Your task to perform on an android device: Go to Google Image 0: 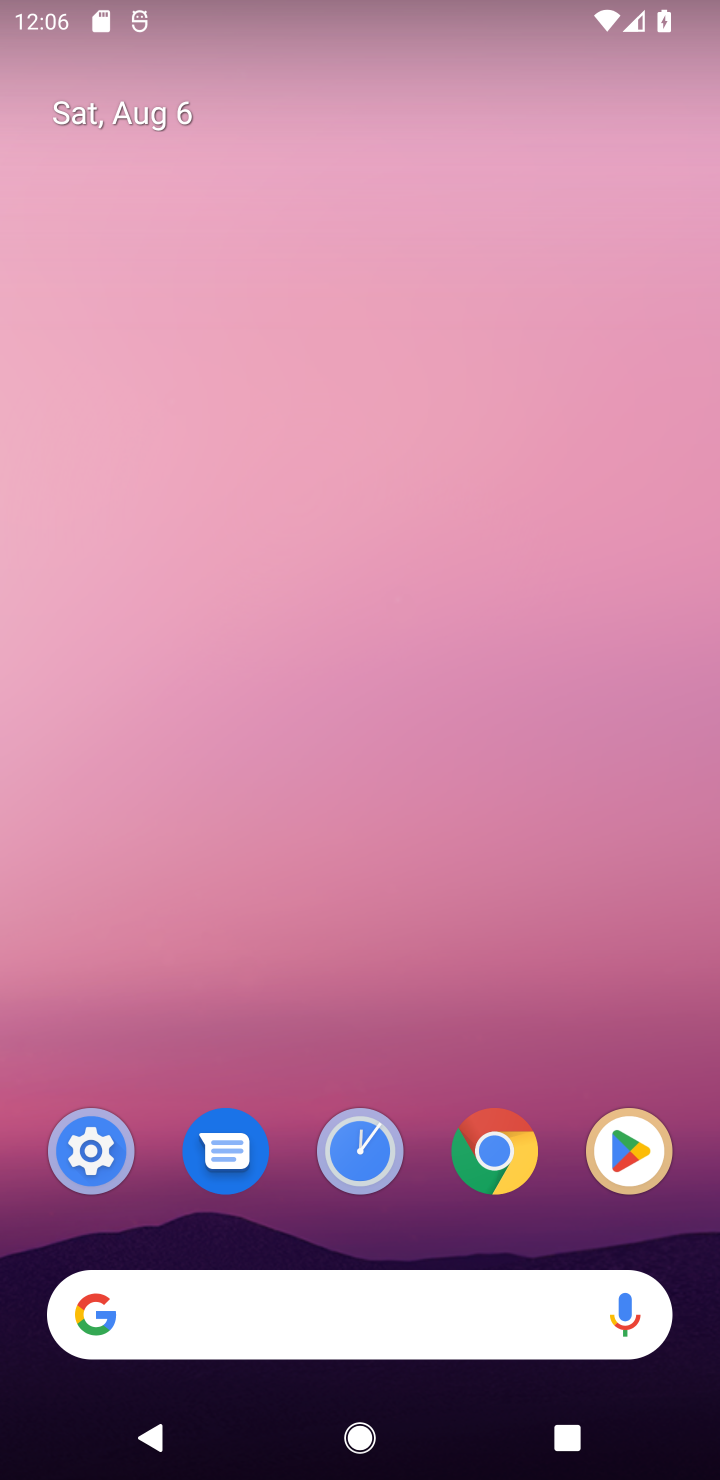
Step 0: click (92, 1320)
Your task to perform on an android device: Go to Google Image 1: 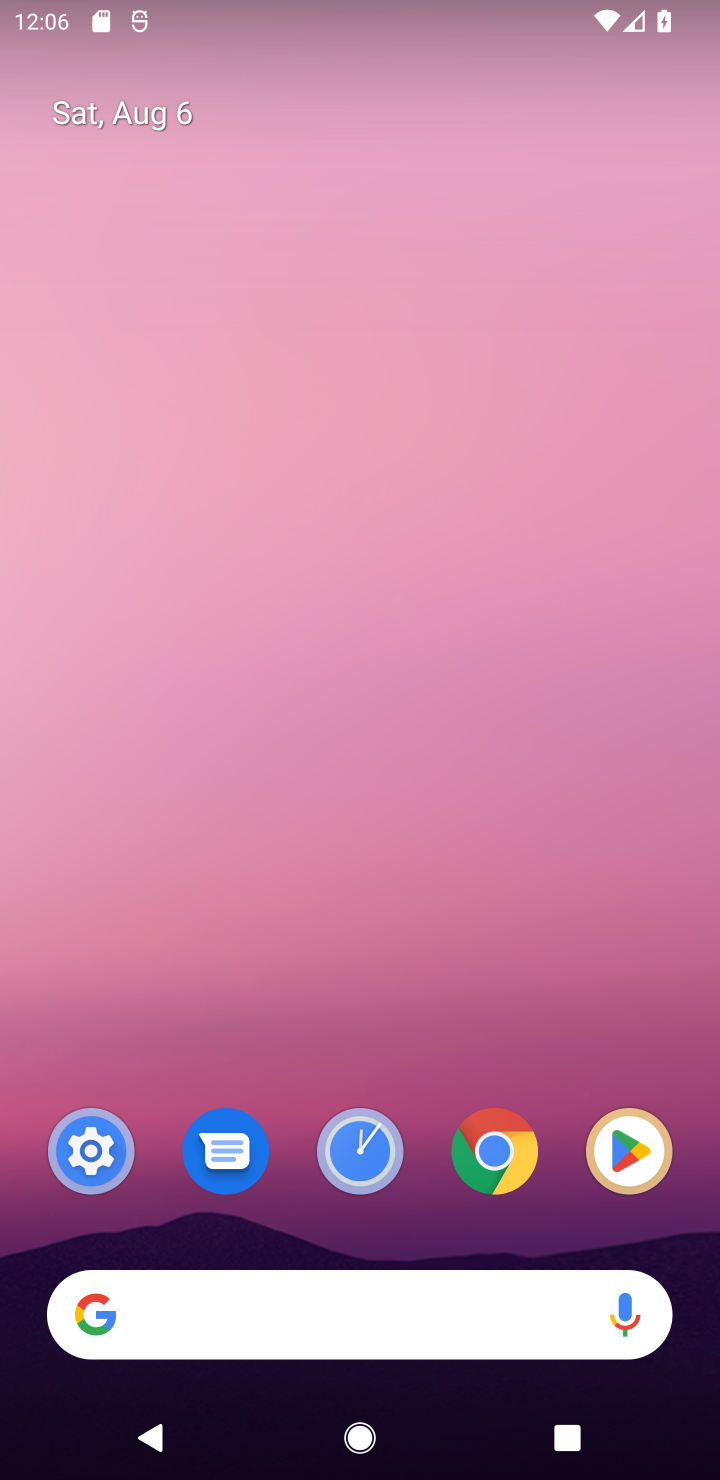
Step 1: click (246, 1034)
Your task to perform on an android device: Go to Google Image 2: 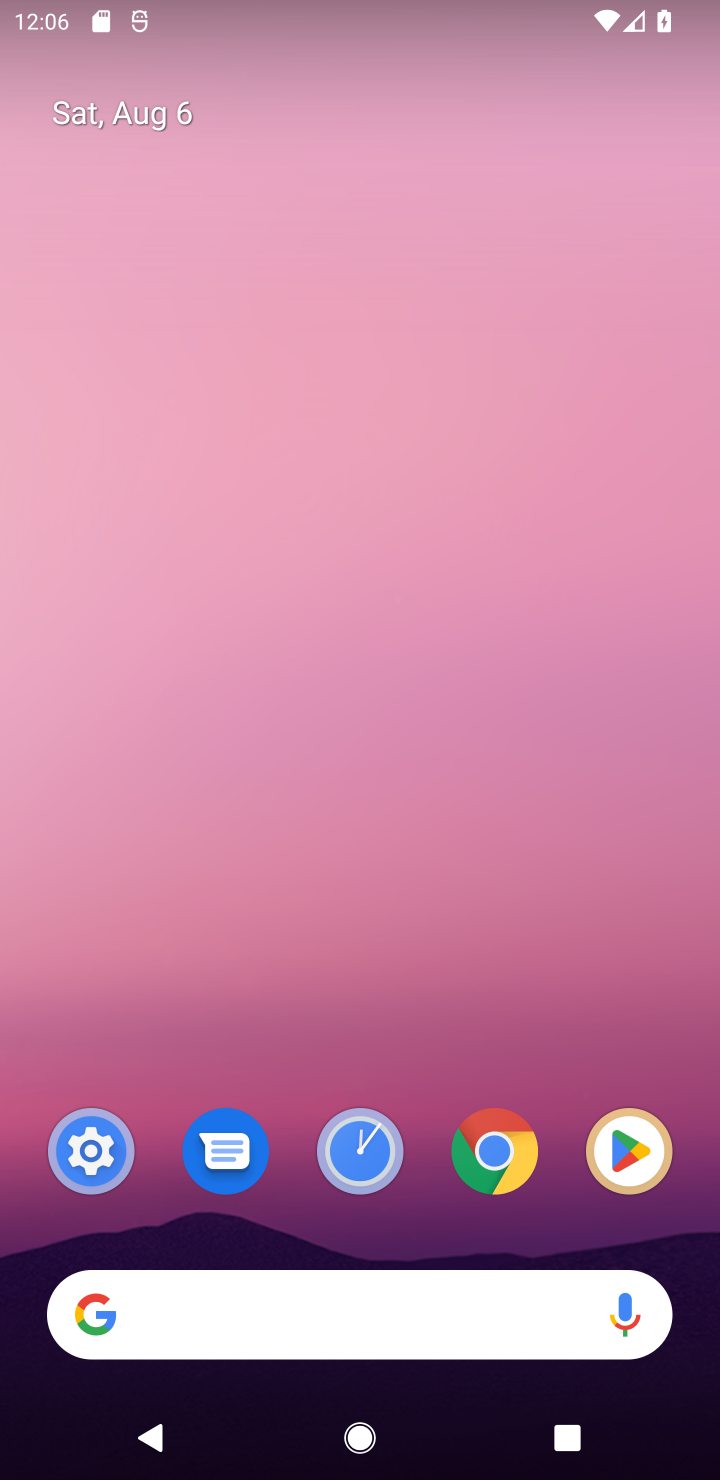
Step 2: drag from (246, 1034) to (183, 257)
Your task to perform on an android device: Go to Google Image 3: 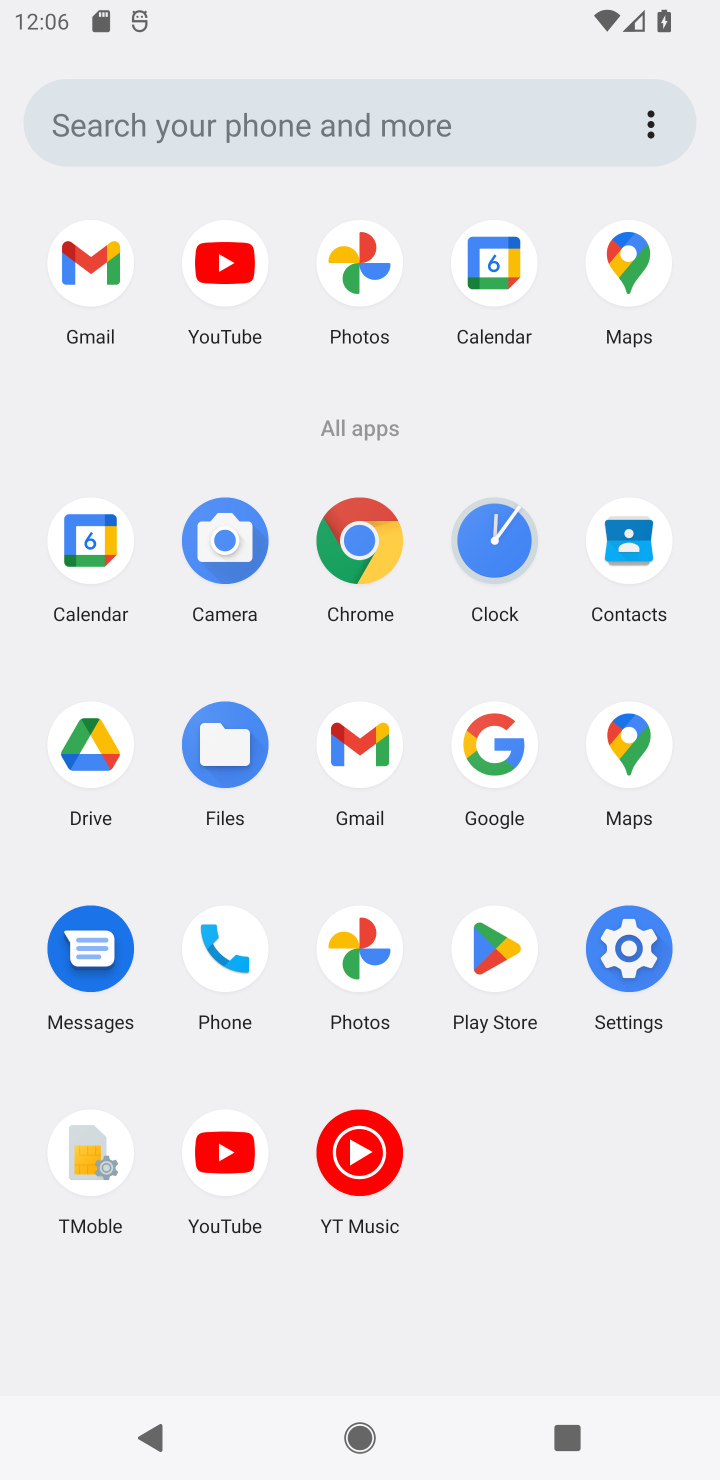
Step 3: click (499, 733)
Your task to perform on an android device: Go to Google Image 4: 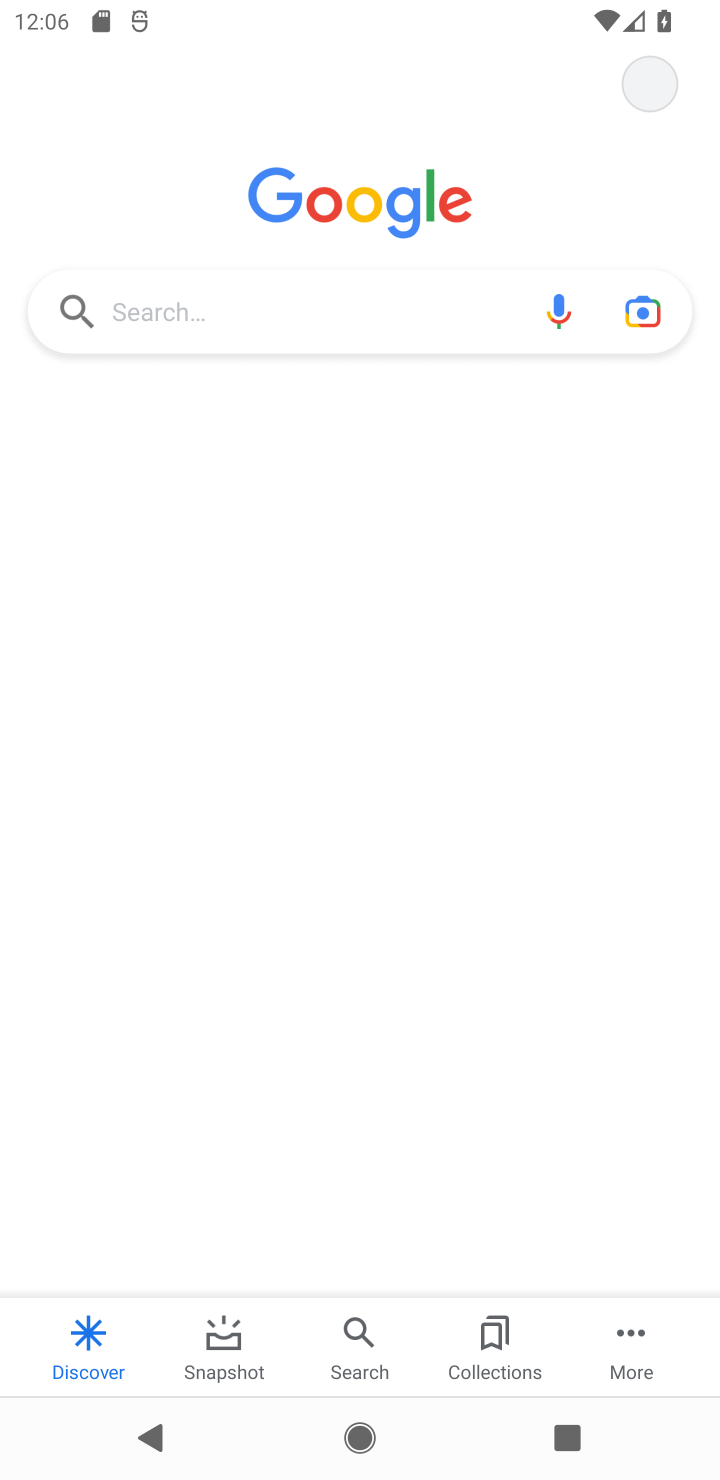
Step 4: task complete